Your task to perform on an android device: Check the news Image 0: 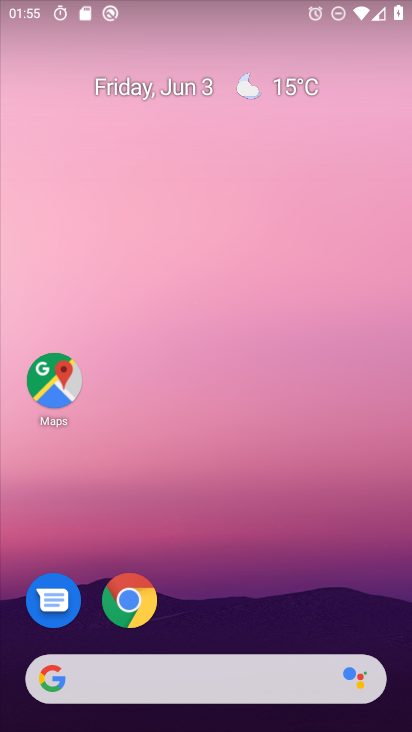
Step 0: drag from (212, 573) to (211, 33)
Your task to perform on an android device: Check the news Image 1: 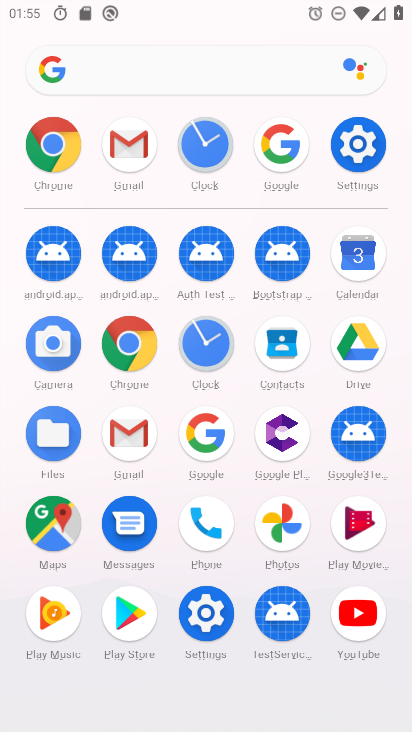
Step 1: click (202, 440)
Your task to perform on an android device: Check the news Image 2: 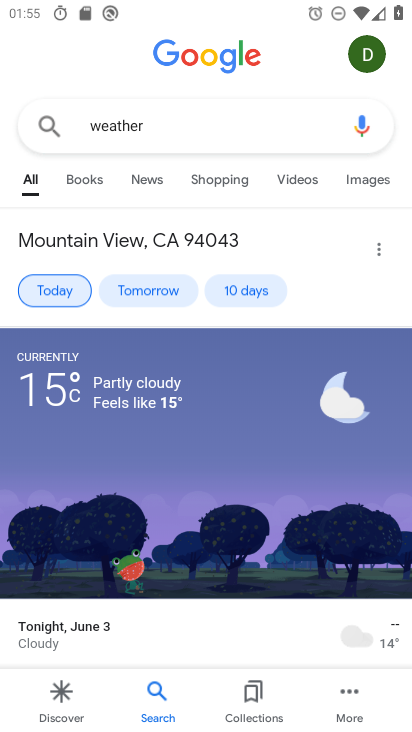
Step 2: click (200, 114)
Your task to perform on an android device: Check the news Image 3: 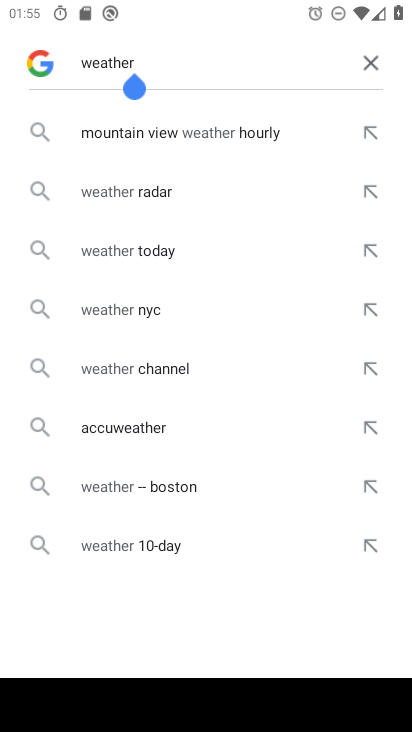
Step 3: click (370, 61)
Your task to perform on an android device: Check the news Image 4: 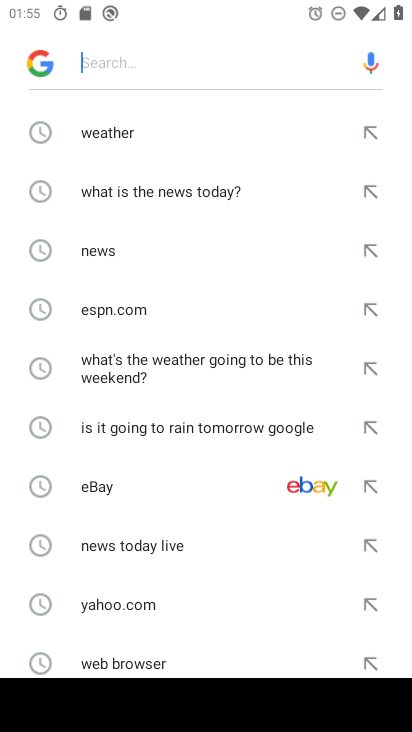
Step 4: click (127, 251)
Your task to perform on an android device: Check the news Image 5: 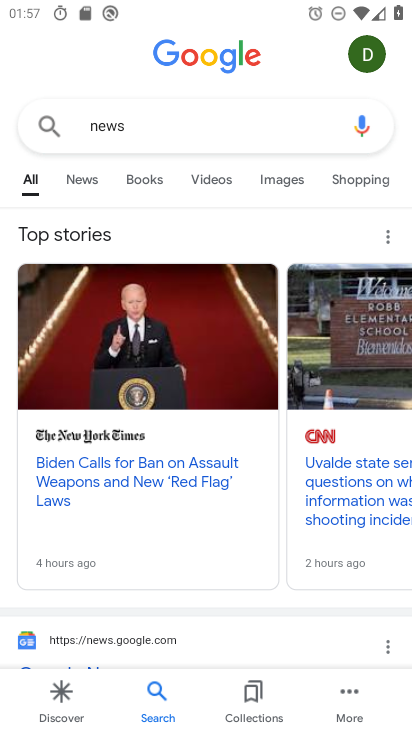
Step 5: task complete